Your task to perform on an android device: open chrome privacy settings Image 0: 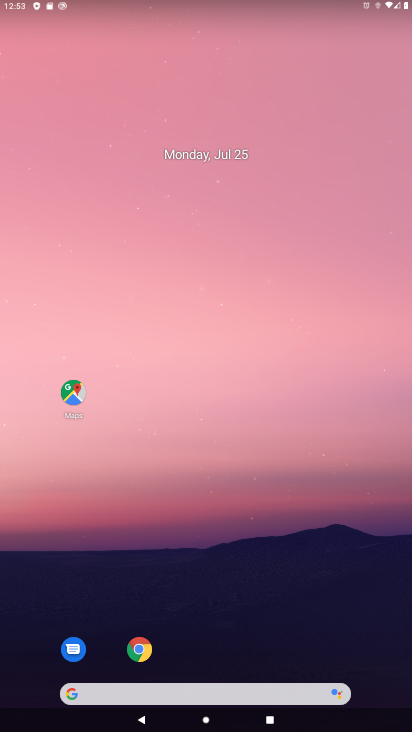
Step 0: press home button
Your task to perform on an android device: open chrome privacy settings Image 1: 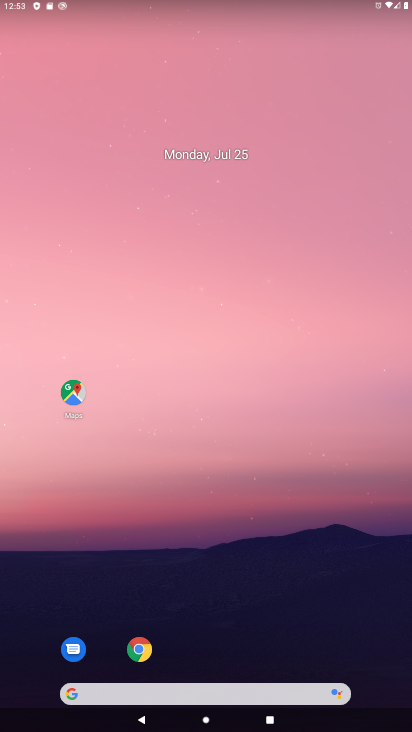
Step 1: press home button
Your task to perform on an android device: open chrome privacy settings Image 2: 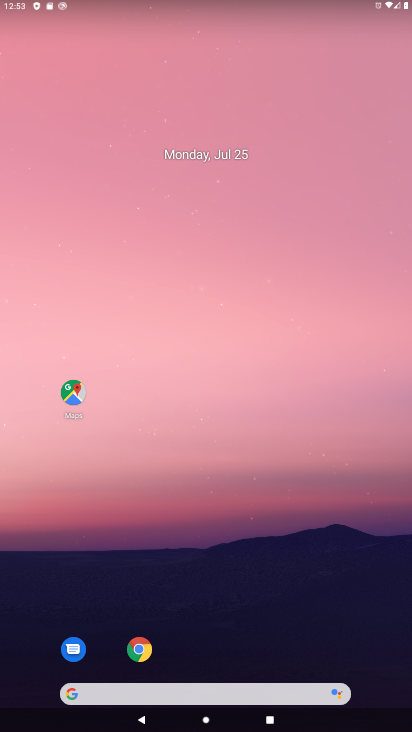
Step 2: click (133, 649)
Your task to perform on an android device: open chrome privacy settings Image 3: 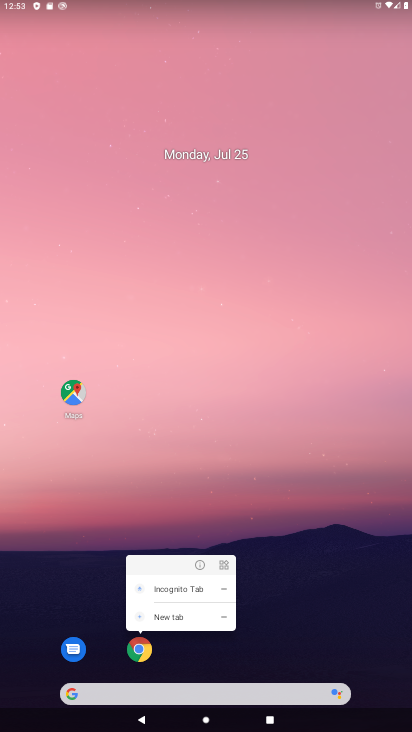
Step 3: click (139, 651)
Your task to perform on an android device: open chrome privacy settings Image 4: 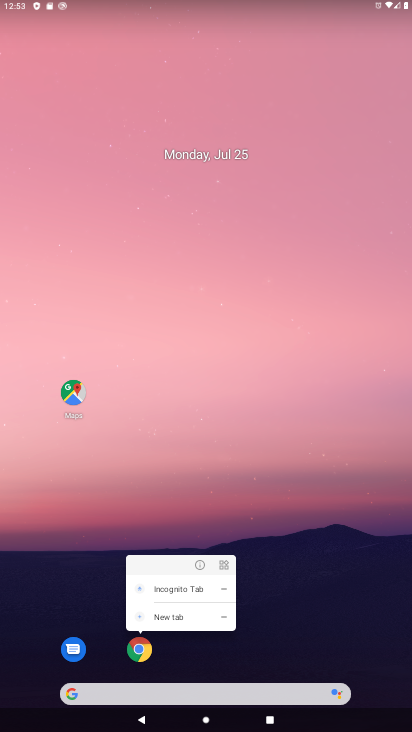
Step 4: click (139, 651)
Your task to perform on an android device: open chrome privacy settings Image 5: 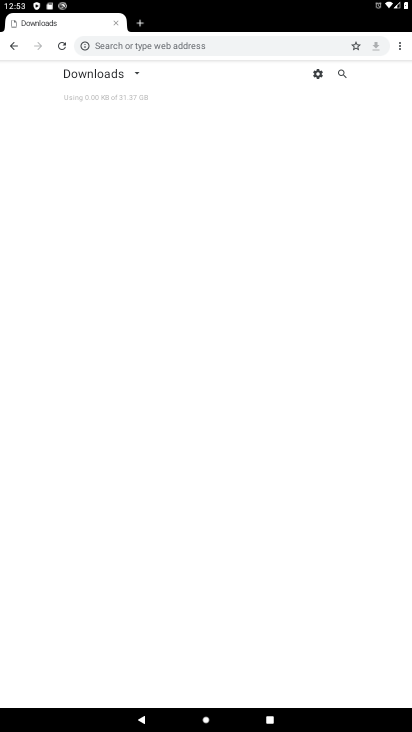
Step 5: drag from (398, 48) to (317, 205)
Your task to perform on an android device: open chrome privacy settings Image 6: 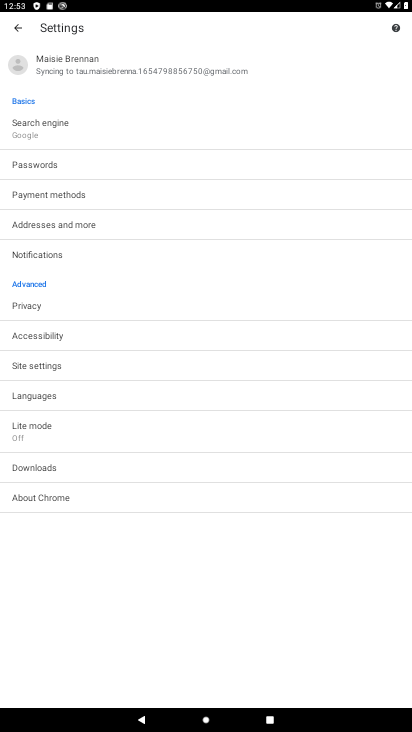
Step 6: click (41, 303)
Your task to perform on an android device: open chrome privacy settings Image 7: 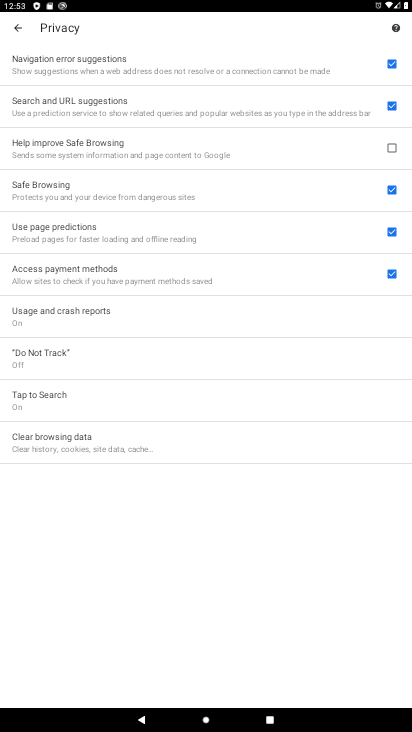
Step 7: task complete